Your task to perform on an android device: toggle sleep mode Image 0: 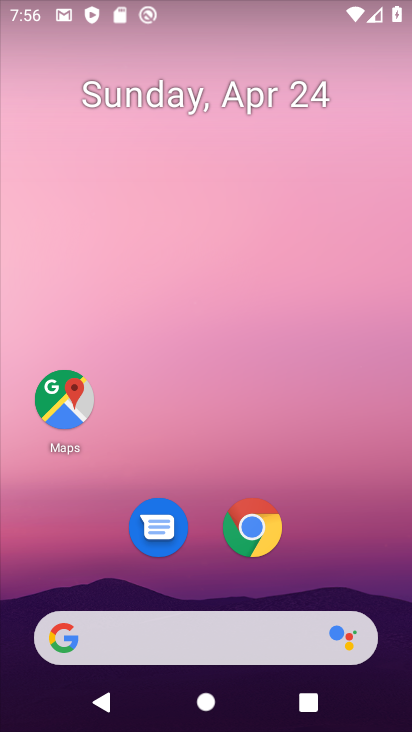
Step 0: drag from (390, 563) to (410, 4)
Your task to perform on an android device: toggle sleep mode Image 1: 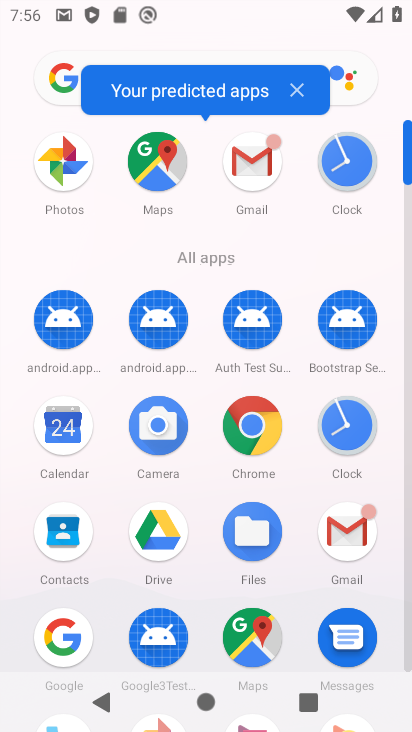
Step 1: drag from (405, 478) to (401, 402)
Your task to perform on an android device: toggle sleep mode Image 2: 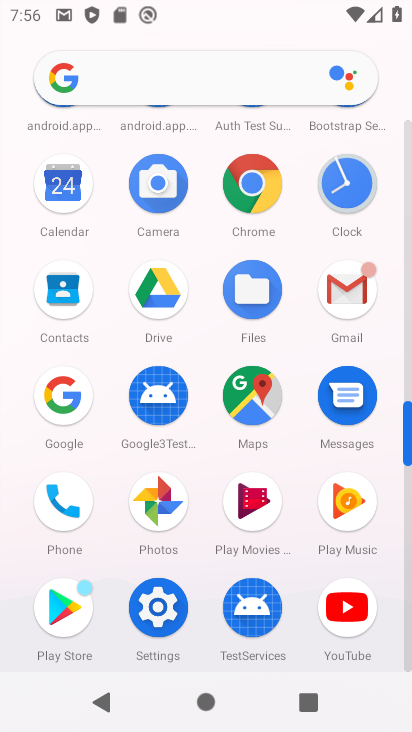
Step 2: click (150, 610)
Your task to perform on an android device: toggle sleep mode Image 3: 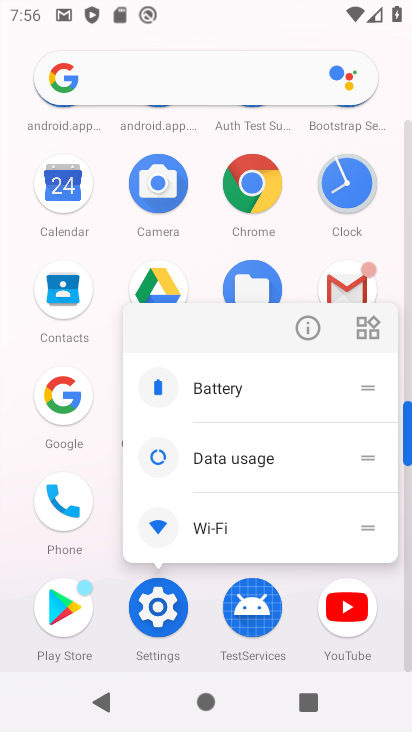
Step 3: click (150, 609)
Your task to perform on an android device: toggle sleep mode Image 4: 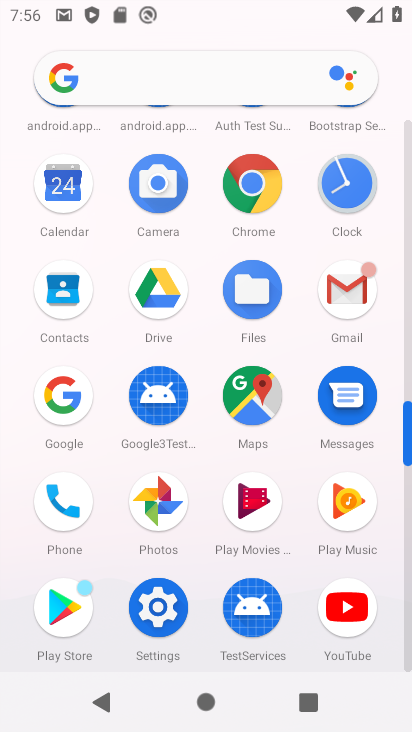
Step 4: click (156, 614)
Your task to perform on an android device: toggle sleep mode Image 5: 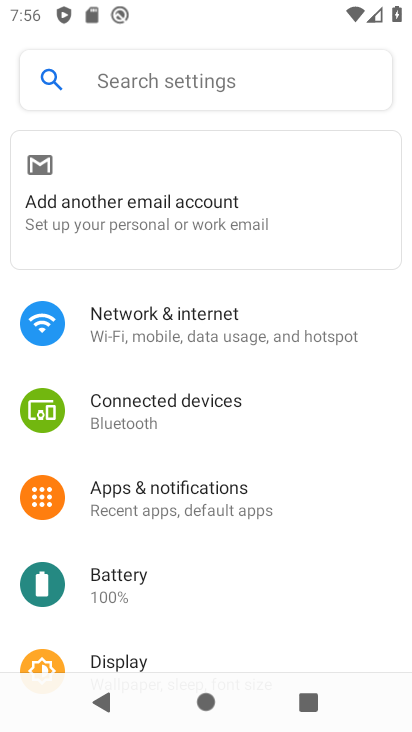
Step 5: click (113, 665)
Your task to perform on an android device: toggle sleep mode Image 6: 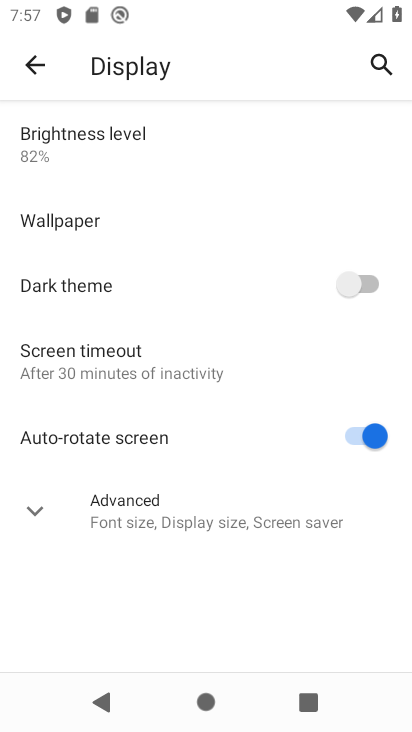
Step 6: click (28, 519)
Your task to perform on an android device: toggle sleep mode Image 7: 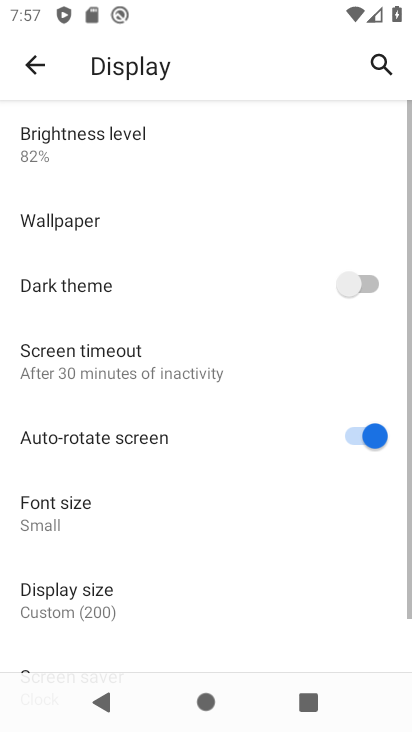
Step 7: task complete